Your task to perform on an android device: Open the web browser Image 0: 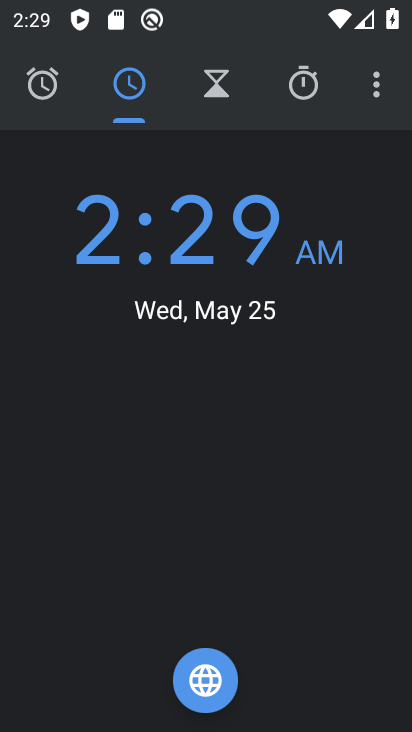
Step 0: press home button
Your task to perform on an android device: Open the web browser Image 1: 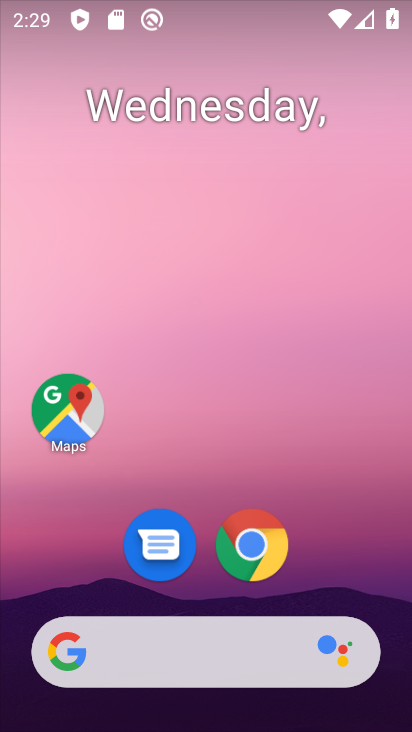
Step 1: click (250, 553)
Your task to perform on an android device: Open the web browser Image 2: 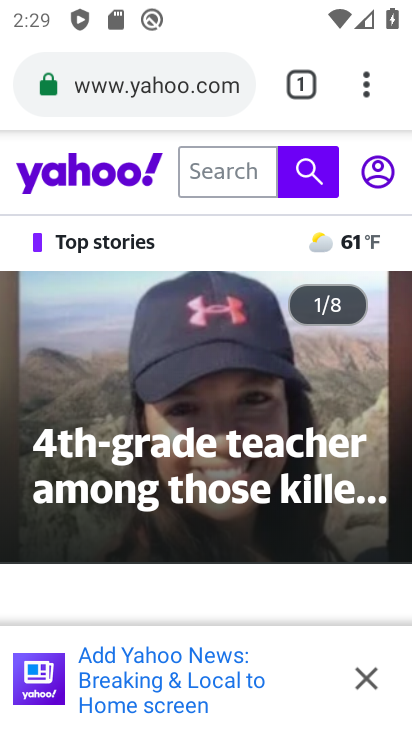
Step 2: task complete